Your task to perform on an android device: toggle pop-ups in chrome Image 0: 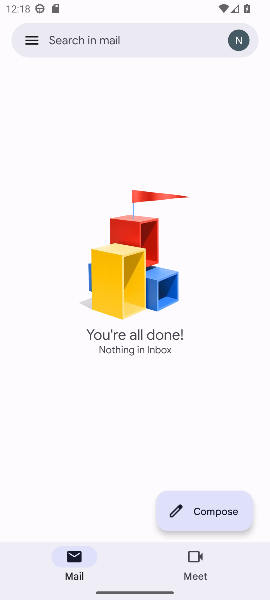
Step 0: press home button
Your task to perform on an android device: toggle pop-ups in chrome Image 1: 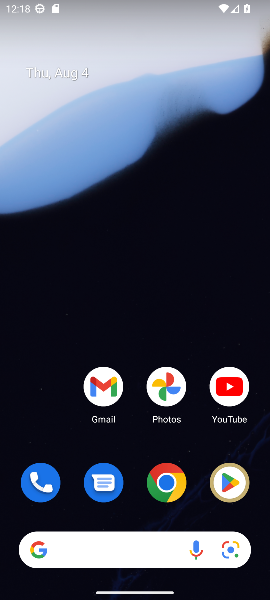
Step 1: click (173, 477)
Your task to perform on an android device: toggle pop-ups in chrome Image 2: 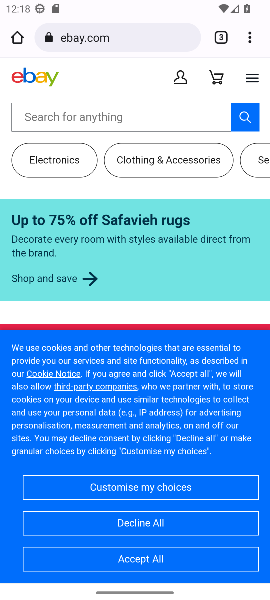
Step 2: click (249, 41)
Your task to perform on an android device: toggle pop-ups in chrome Image 3: 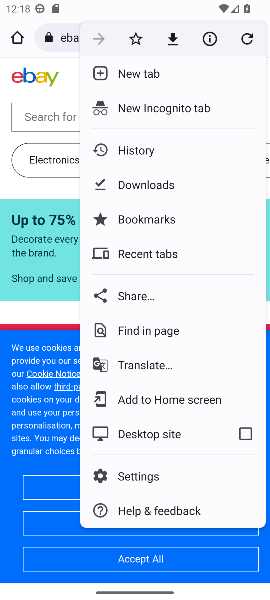
Step 3: click (153, 472)
Your task to perform on an android device: toggle pop-ups in chrome Image 4: 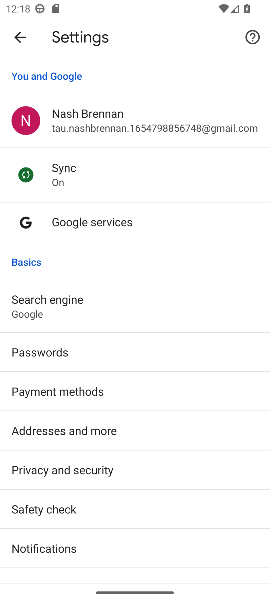
Step 4: drag from (120, 492) to (109, 252)
Your task to perform on an android device: toggle pop-ups in chrome Image 5: 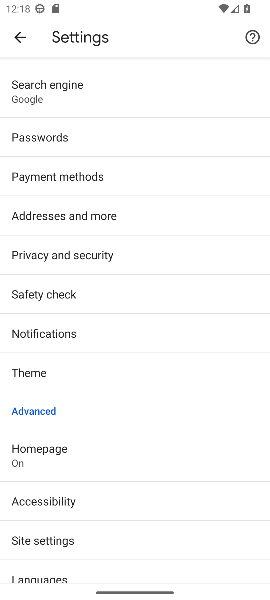
Step 5: click (84, 536)
Your task to perform on an android device: toggle pop-ups in chrome Image 6: 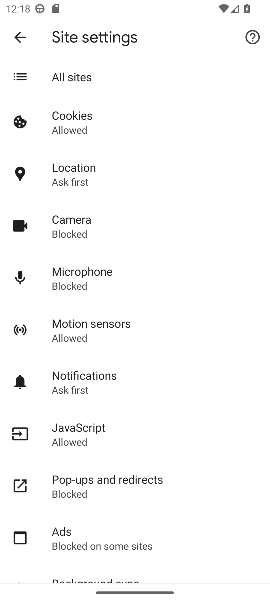
Step 6: click (109, 473)
Your task to perform on an android device: toggle pop-ups in chrome Image 7: 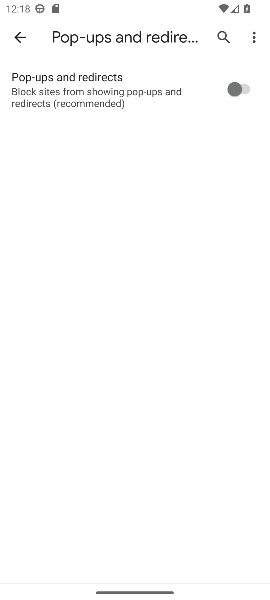
Step 7: click (244, 90)
Your task to perform on an android device: toggle pop-ups in chrome Image 8: 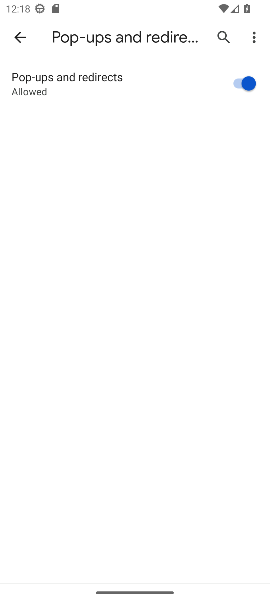
Step 8: task complete